Your task to perform on an android device: delete location history Image 0: 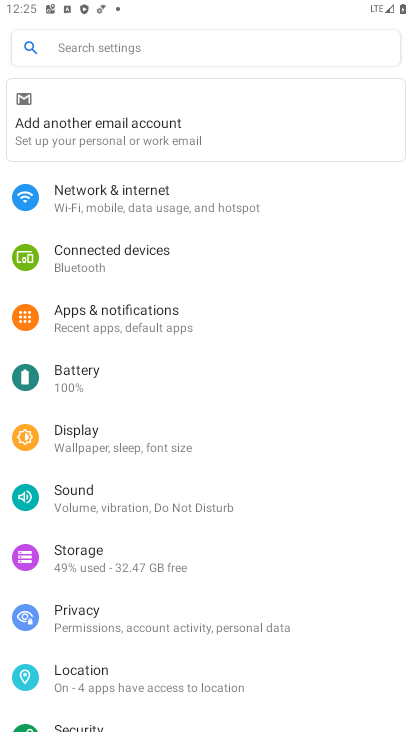
Step 0: press home button
Your task to perform on an android device: delete location history Image 1: 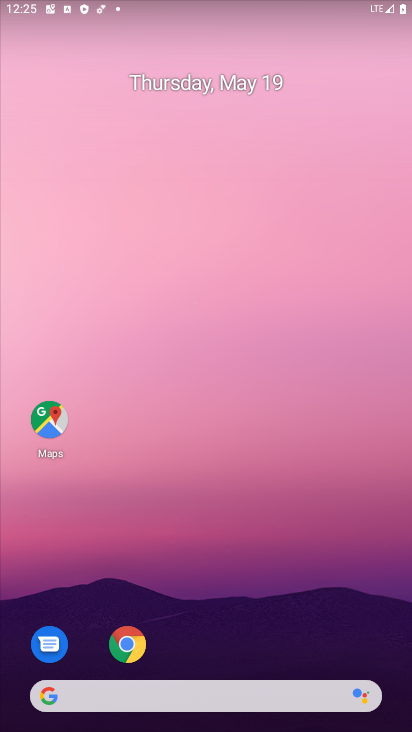
Step 1: drag from (361, 614) to (293, 98)
Your task to perform on an android device: delete location history Image 2: 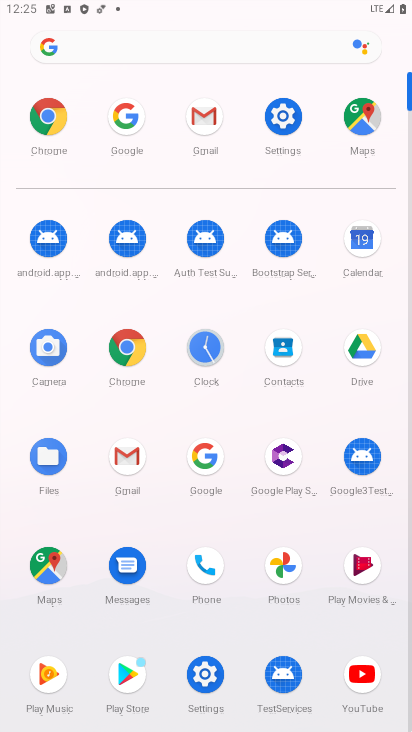
Step 2: click (286, 113)
Your task to perform on an android device: delete location history Image 3: 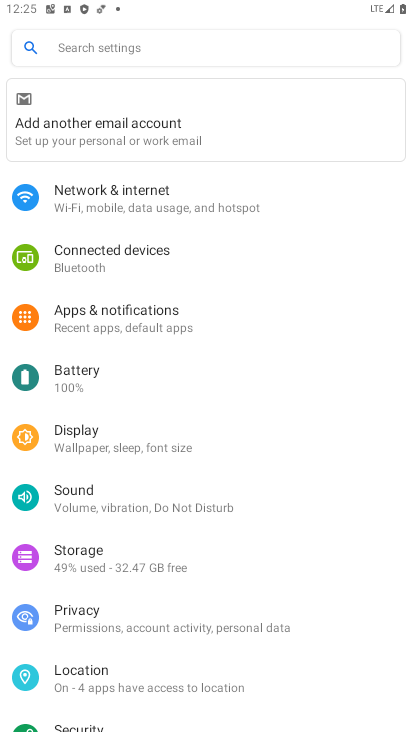
Step 3: click (134, 687)
Your task to perform on an android device: delete location history Image 4: 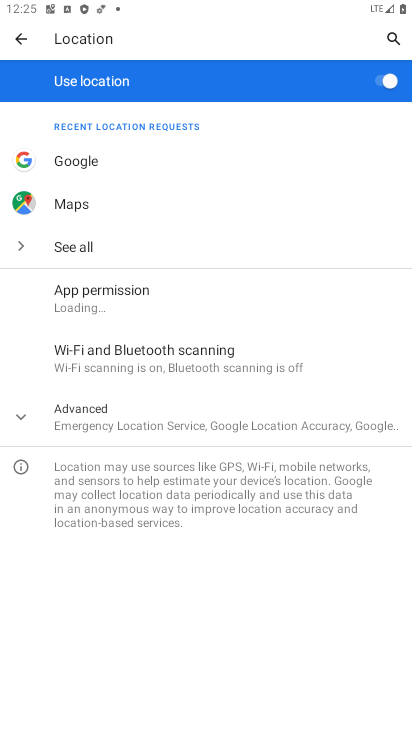
Step 4: click (151, 430)
Your task to perform on an android device: delete location history Image 5: 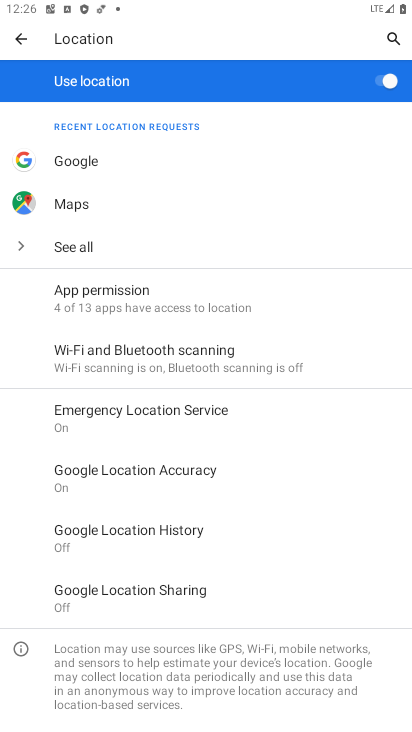
Step 5: click (163, 538)
Your task to perform on an android device: delete location history Image 6: 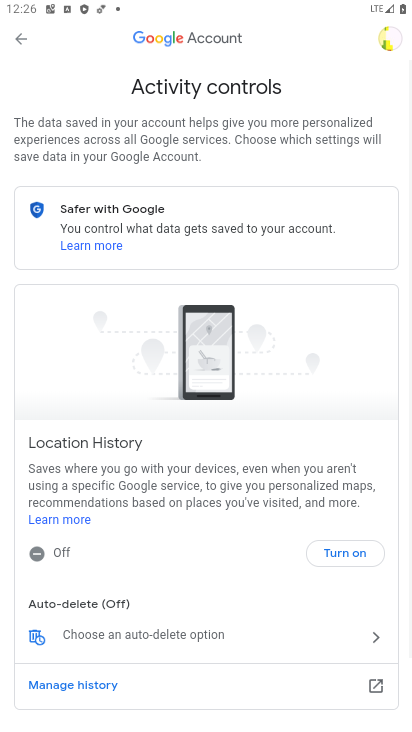
Step 6: drag from (335, 605) to (253, 196)
Your task to perform on an android device: delete location history Image 7: 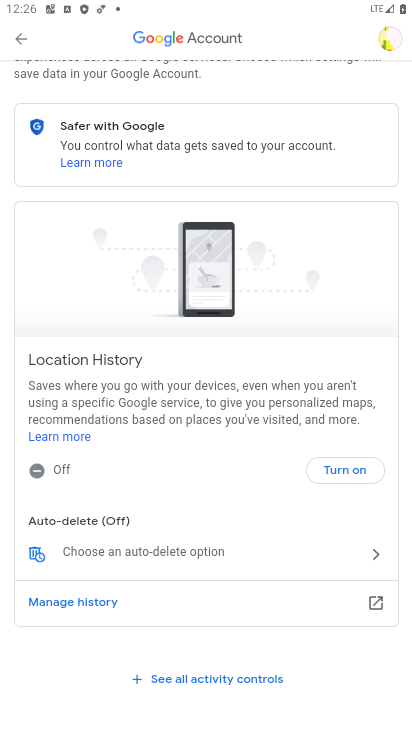
Step 7: click (205, 549)
Your task to perform on an android device: delete location history Image 8: 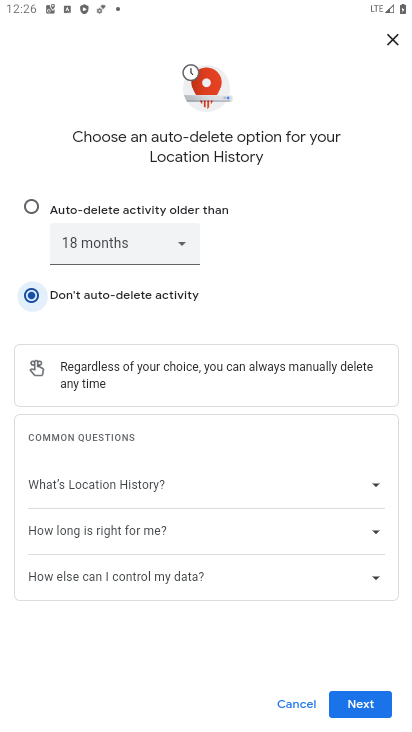
Step 8: click (354, 718)
Your task to perform on an android device: delete location history Image 9: 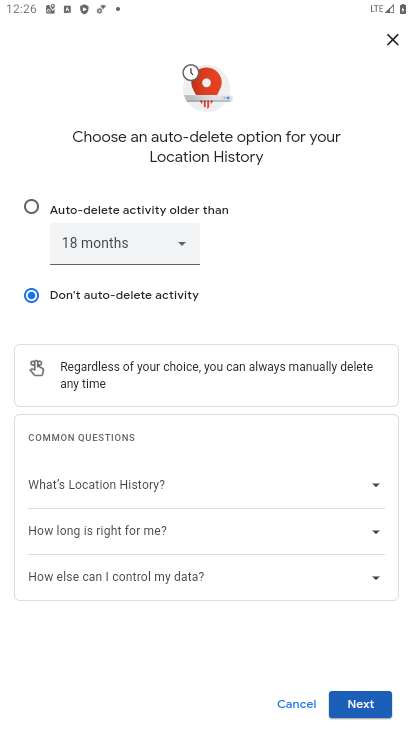
Step 9: click (346, 706)
Your task to perform on an android device: delete location history Image 10: 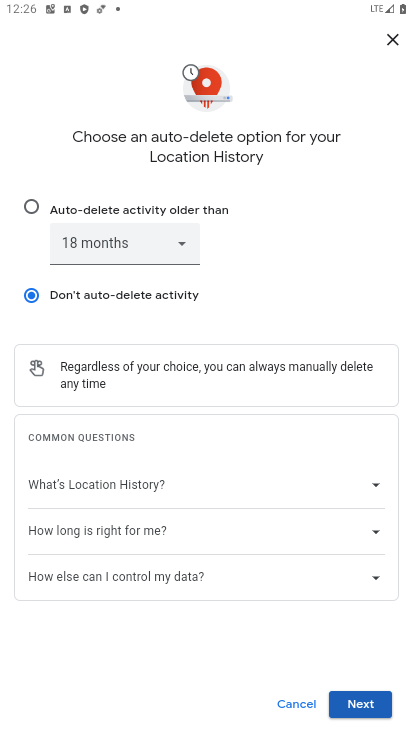
Step 10: click (353, 704)
Your task to perform on an android device: delete location history Image 11: 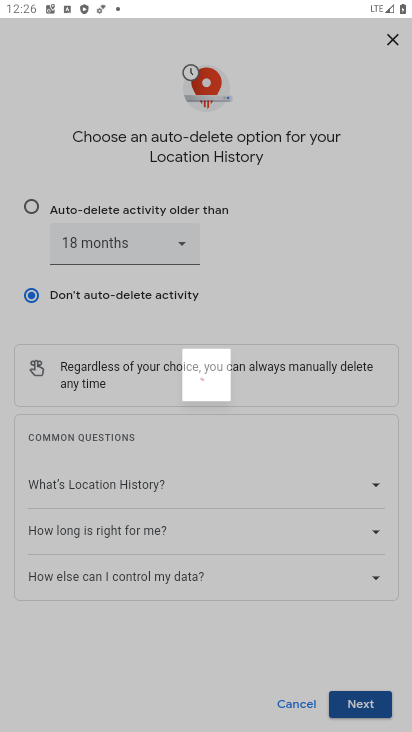
Step 11: click (354, 704)
Your task to perform on an android device: delete location history Image 12: 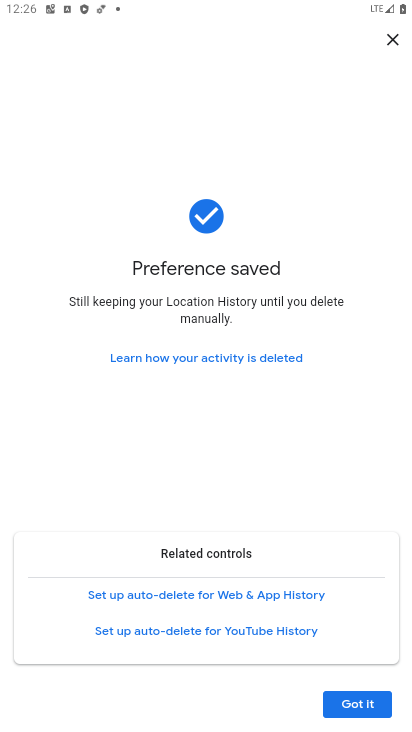
Step 12: click (355, 703)
Your task to perform on an android device: delete location history Image 13: 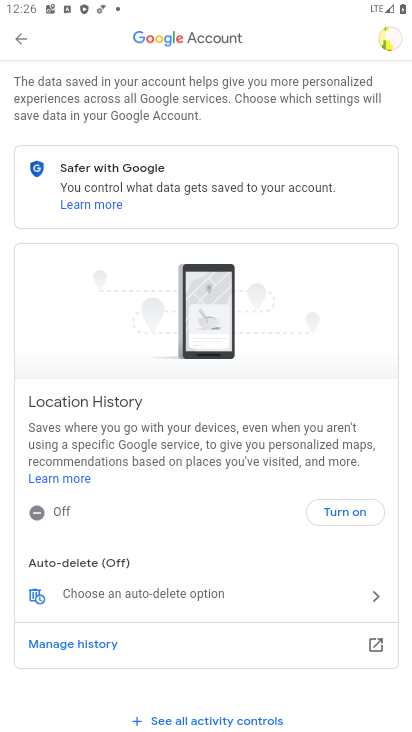
Step 13: task complete